Your task to perform on an android device: check battery use Image 0: 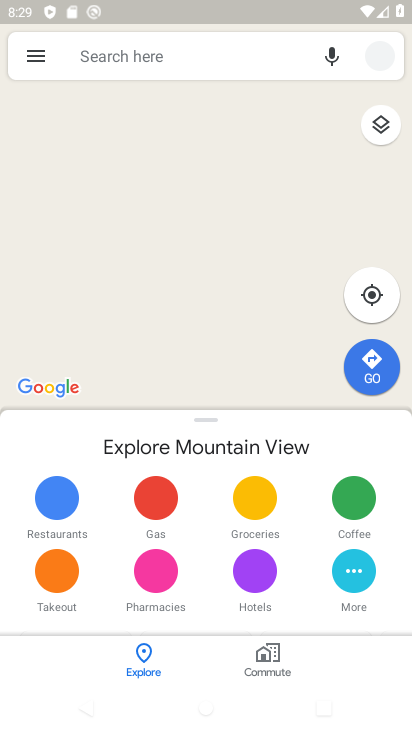
Step 0: press back button
Your task to perform on an android device: check battery use Image 1: 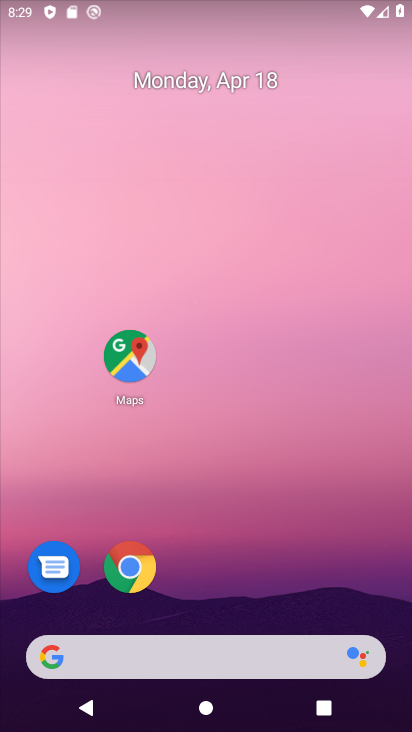
Step 1: drag from (181, 634) to (176, 119)
Your task to perform on an android device: check battery use Image 2: 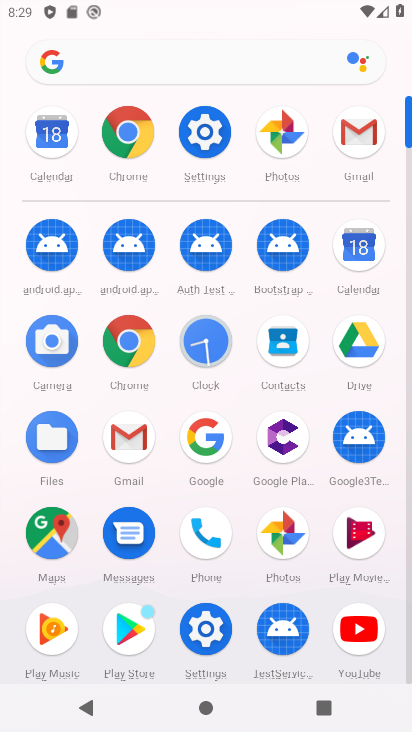
Step 2: click (198, 152)
Your task to perform on an android device: check battery use Image 3: 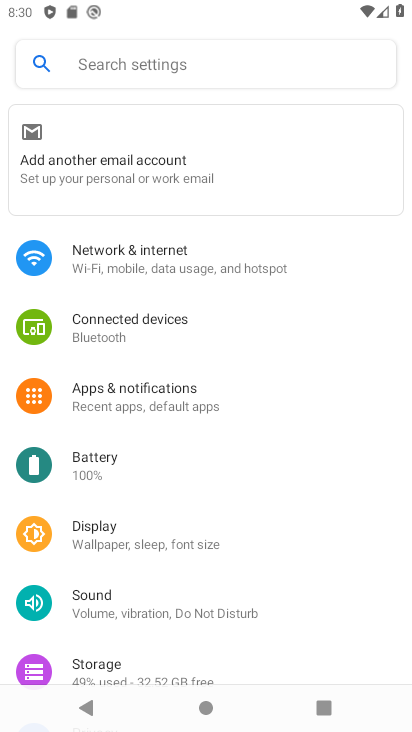
Step 3: click (109, 456)
Your task to perform on an android device: check battery use Image 4: 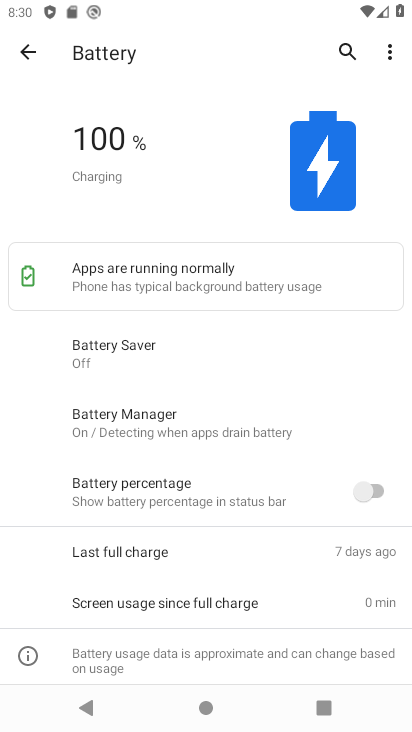
Step 4: task complete